Your task to perform on an android device: Open the map Image 0: 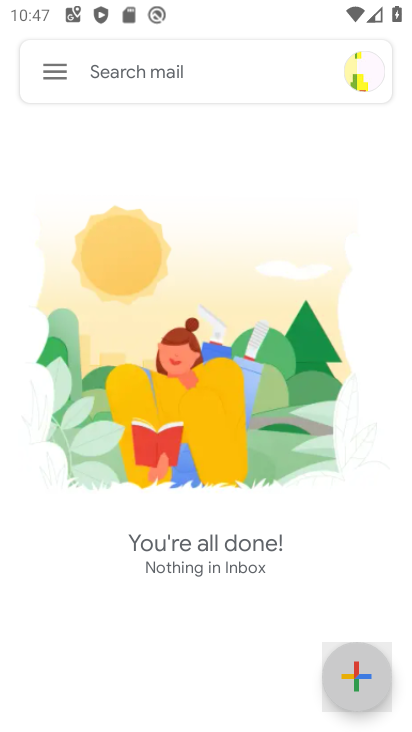
Step 0: press home button
Your task to perform on an android device: Open the map Image 1: 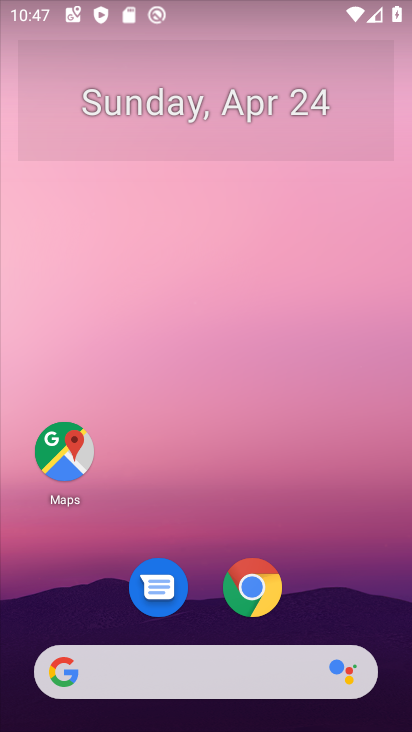
Step 1: click (77, 453)
Your task to perform on an android device: Open the map Image 2: 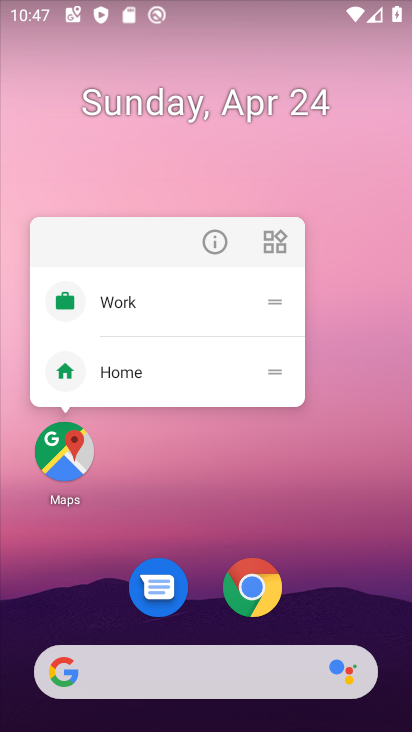
Step 2: click (60, 459)
Your task to perform on an android device: Open the map Image 3: 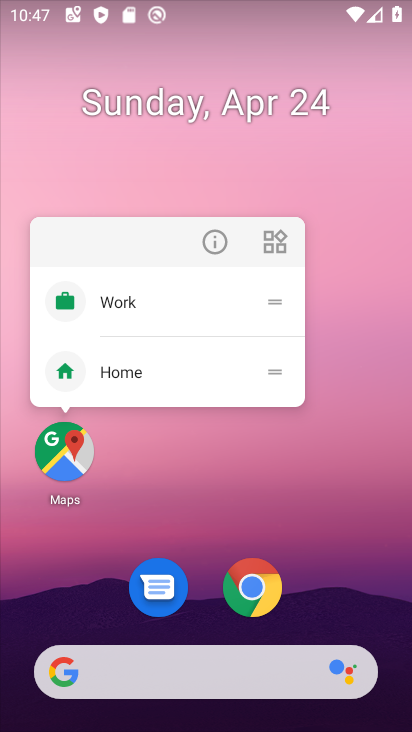
Step 3: click (59, 458)
Your task to perform on an android device: Open the map Image 4: 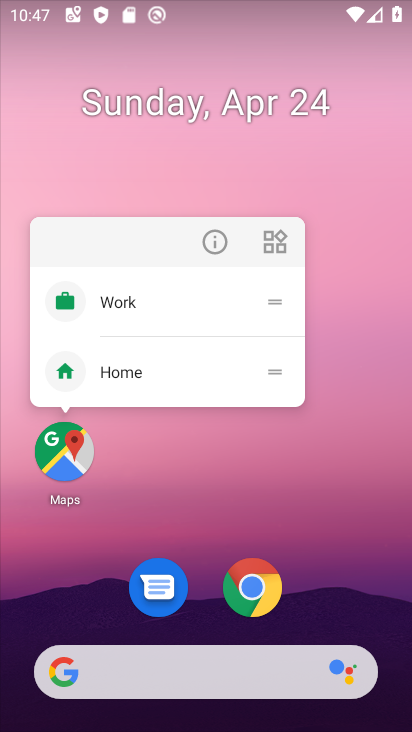
Step 4: click (59, 458)
Your task to perform on an android device: Open the map Image 5: 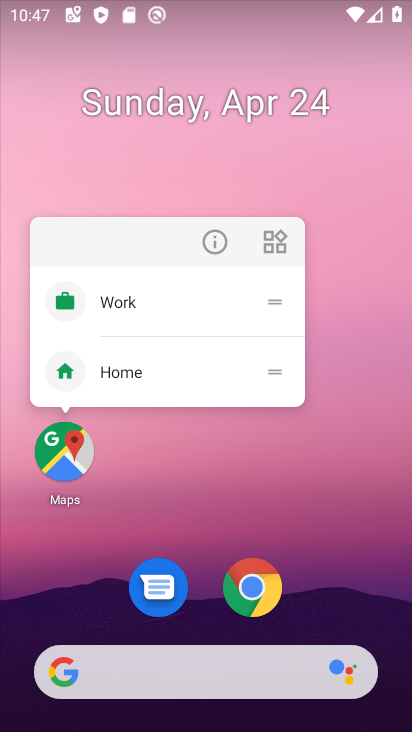
Step 5: drag from (307, 485) to (337, 3)
Your task to perform on an android device: Open the map Image 6: 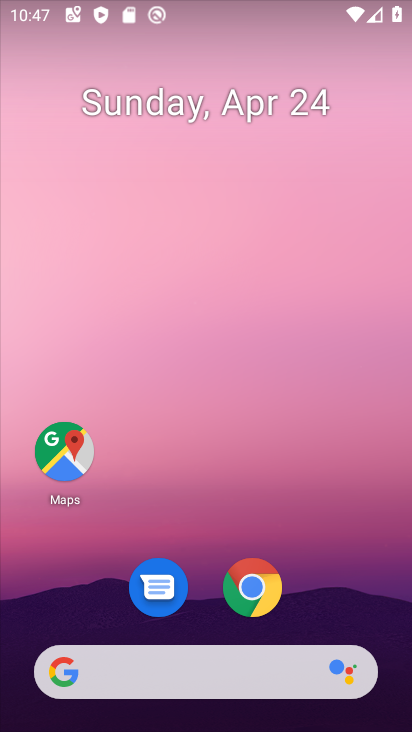
Step 6: drag from (349, 573) to (271, 154)
Your task to perform on an android device: Open the map Image 7: 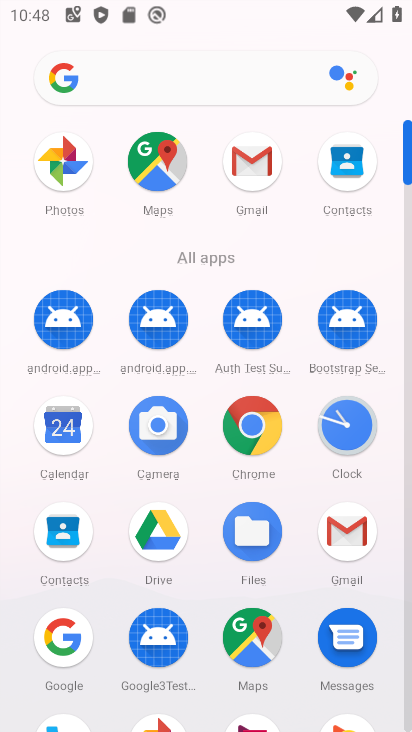
Step 7: click (254, 645)
Your task to perform on an android device: Open the map Image 8: 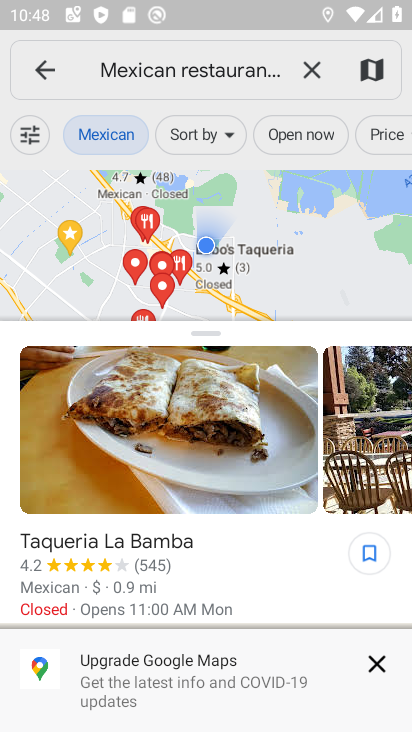
Step 8: task complete